Your task to perform on an android device: change alarm snooze length Image 0: 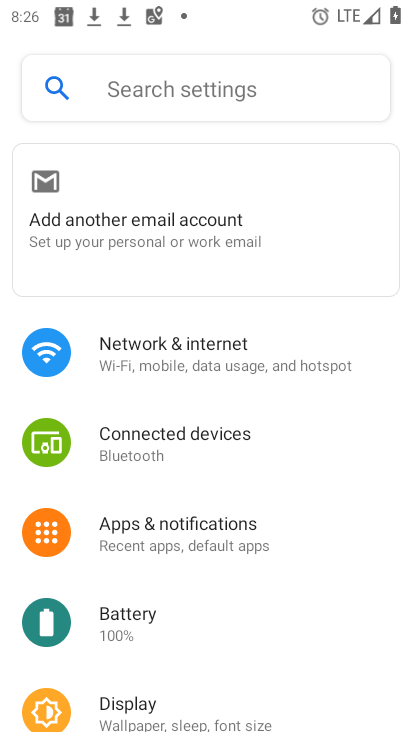
Step 0: press home button
Your task to perform on an android device: change alarm snooze length Image 1: 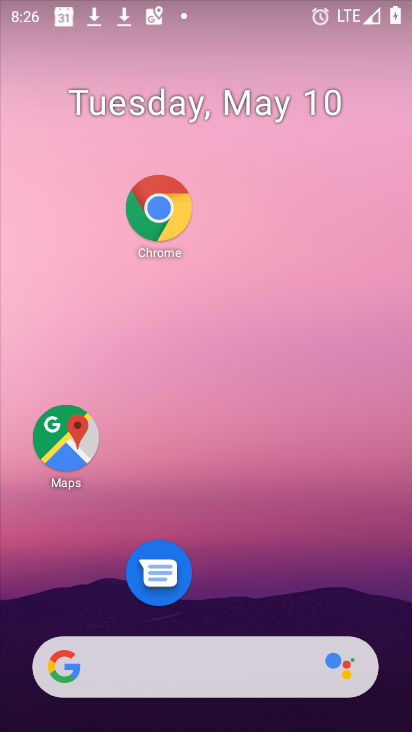
Step 1: drag from (164, 695) to (286, 307)
Your task to perform on an android device: change alarm snooze length Image 2: 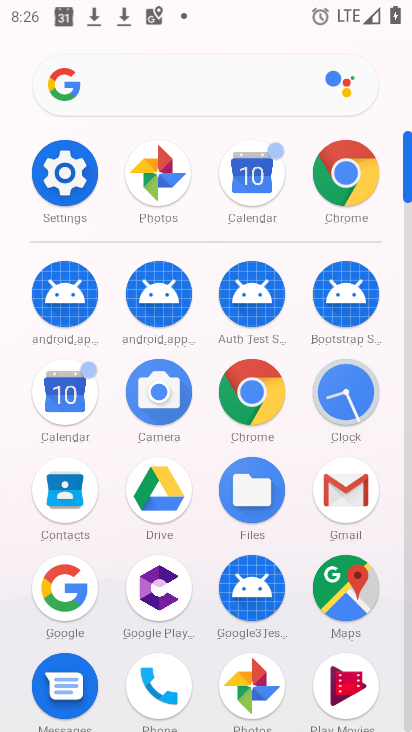
Step 2: click (349, 381)
Your task to perform on an android device: change alarm snooze length Image 3: 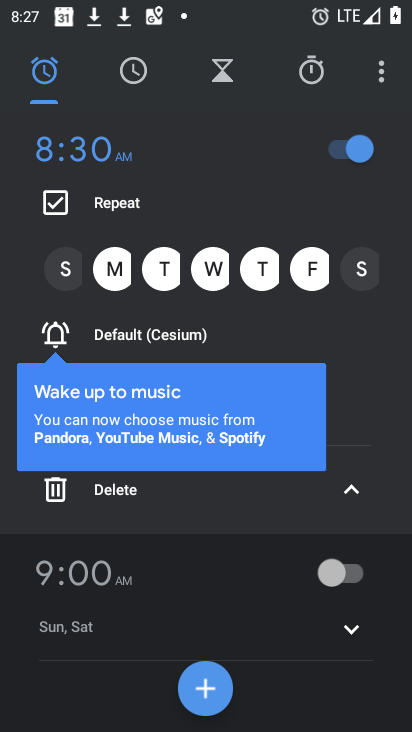
Step 3: click (376, 71)
Your task to perform on an android device: change alarm snooze length Image 4: 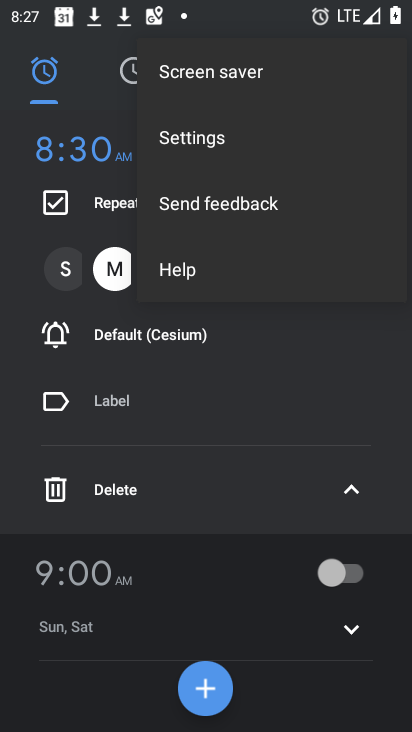
Step 4: click (224, 153)
Your task to perform on an android device: change alarm snooze length Image 5: 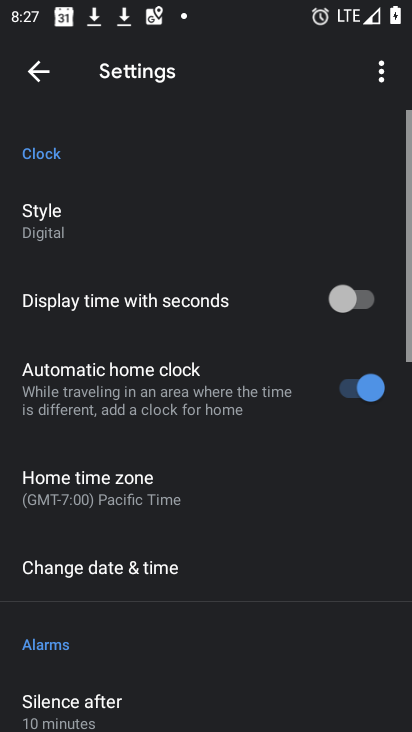
Step 5: drag from (166, 610) to (262, 187)
Your task to perform on an android device: change alarm snooze length Image 6: 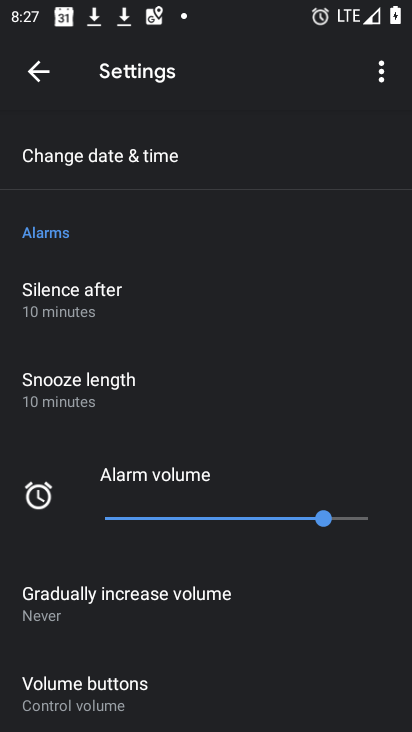
Step 6: drag from (146, 652) to (192, 446)
Your task to perform on an android device: change alarm snooze length Image 7: 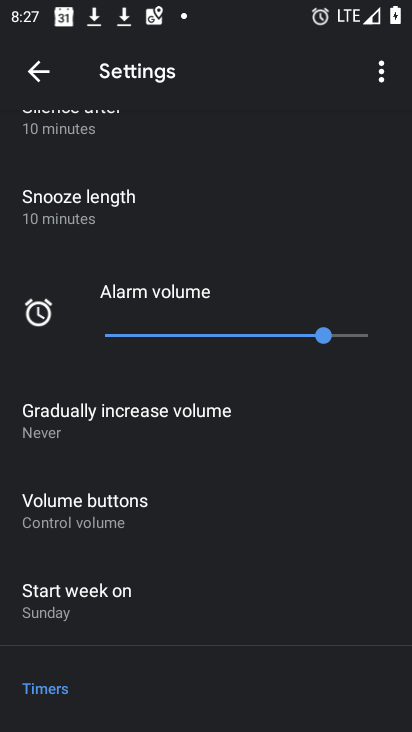
Step 7: drag from (143, 552) to (171, 325)
Your task to perform on an android device: change alarm snooze length Image 8: 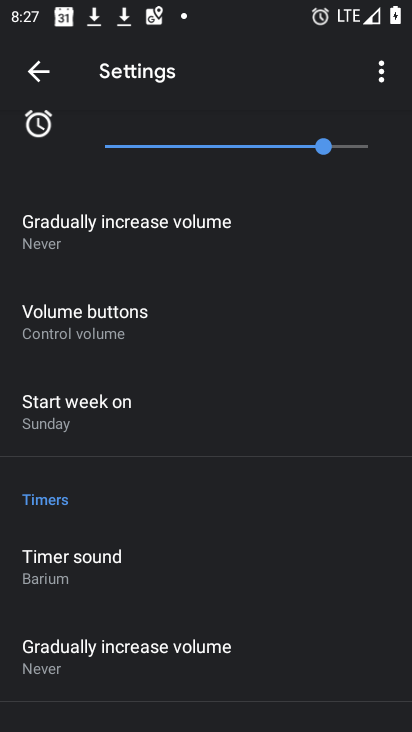
Step 8: drag from (112, 539) to (189, 346)
Your task to perform on an android device: change alarm snooze length Image 9: 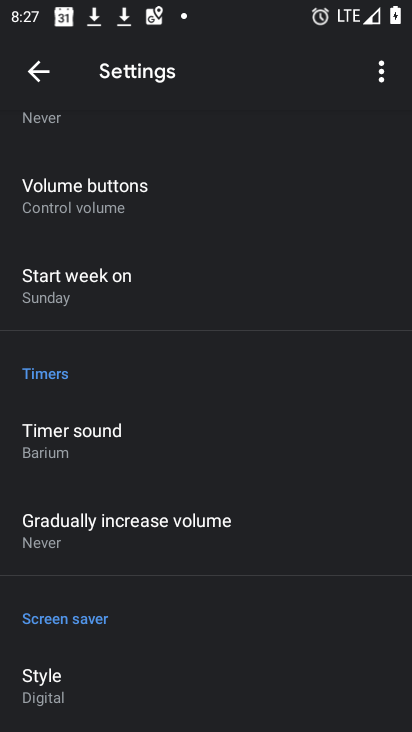
Step 9: drag from (127, 651) to (166, 696)
Your task to perform on an android device: change alarm snooze length Image 10: 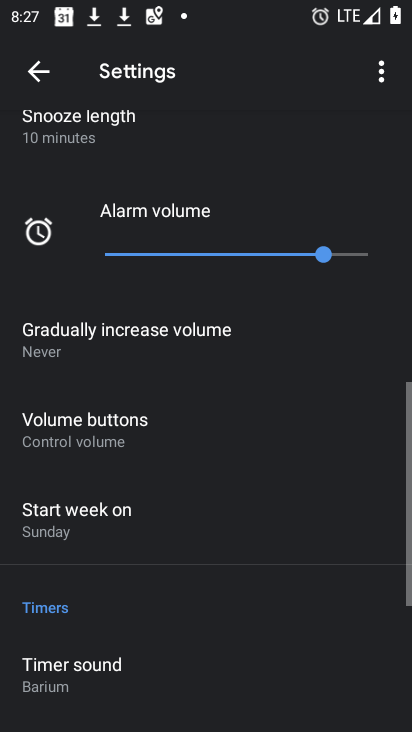
Step 10: drag from (197, 264) to (163, 500)
Your task to perform on an android device: change alarm snooze length Image 11: 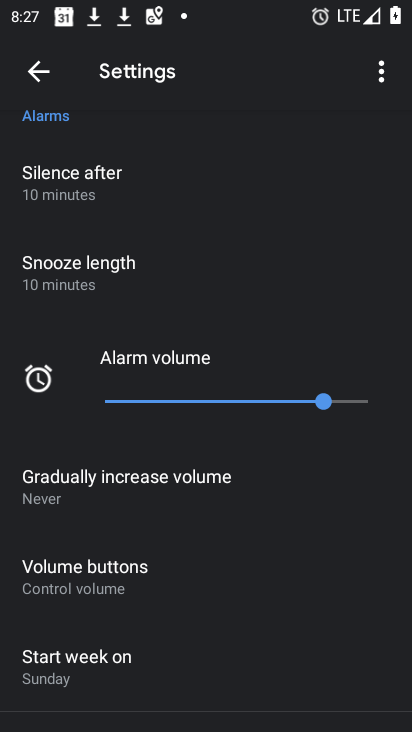
Step 11: click (74, 274)
Your task to perform on an android device: change alarm snooze length Image 12: 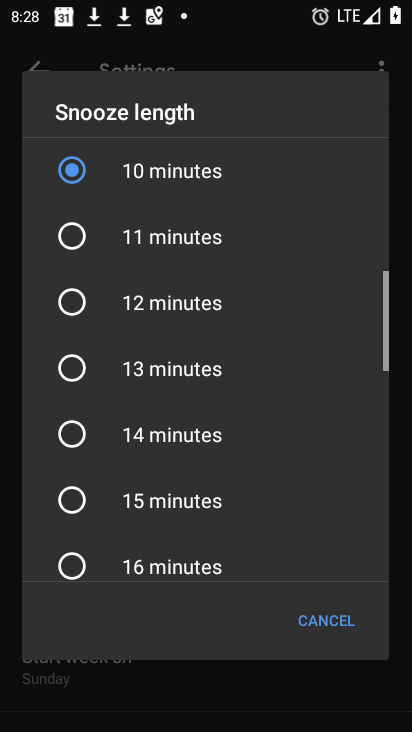
Step 12: click (141, 300)
Your task to perform on an android device: change alarm snooze length Image 13: 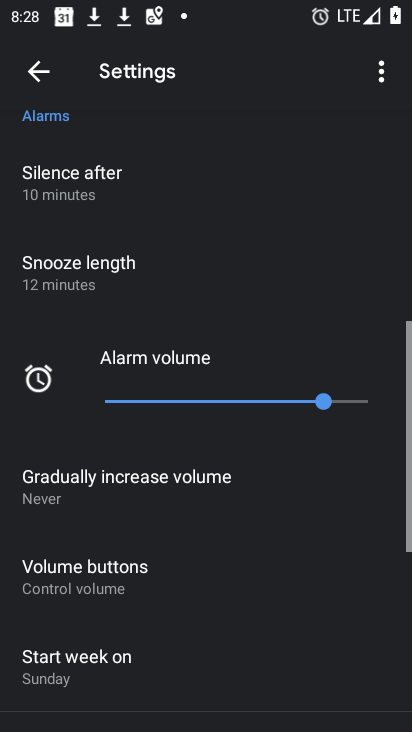
Step 13: task complete